Your task to perform on an android device: refresh tabs in the chrome app Image 0: 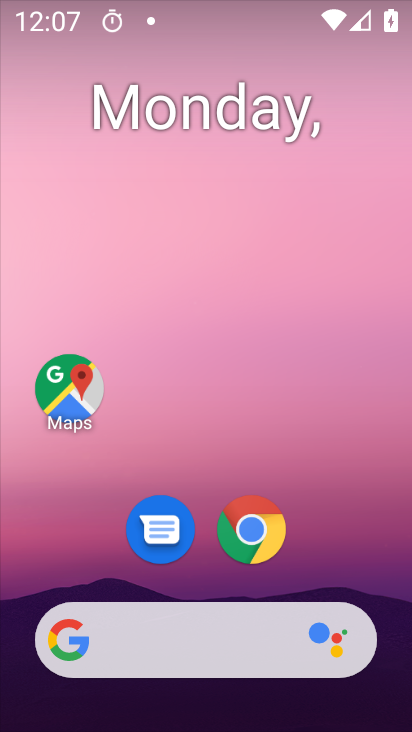
Step 0: drag from (380, 587) to (367, 132)
Your task to perform on an android device: refresh tabs in the chrome app Image 1: 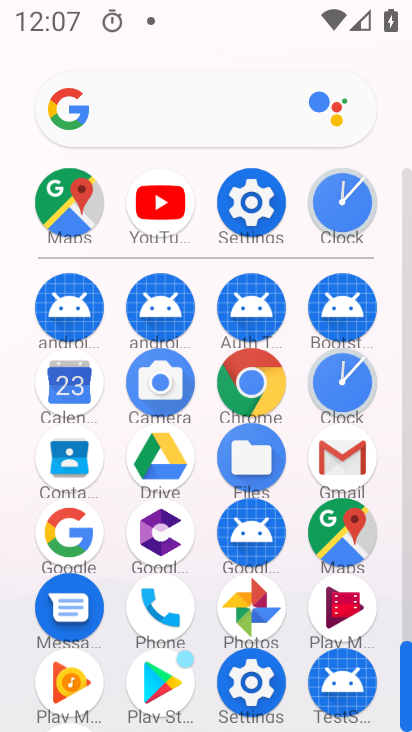
Step 1: click (249, 393)
Your task to perform on an android device: refresh tabs in the chrome app Image 2: 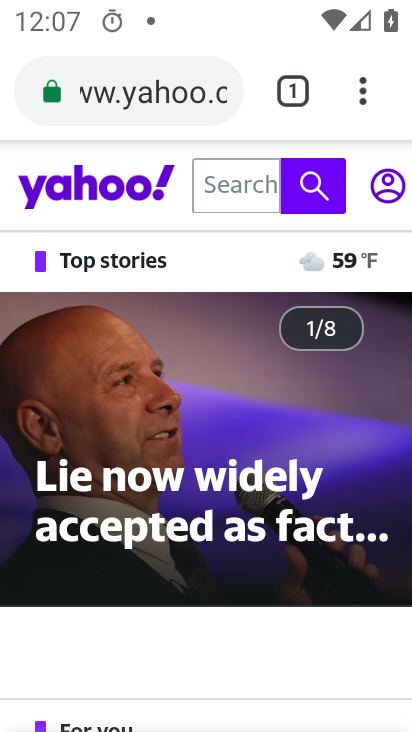
Step 2: click (364, 104)
Your task to perform on an android device: refresh tabs in the chrome app Image 3: 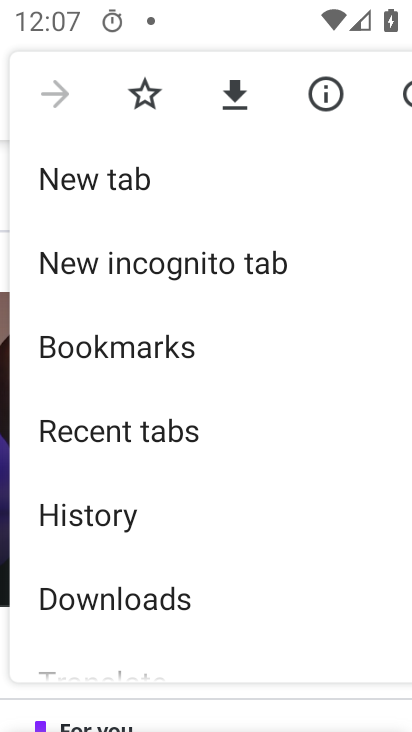
Step 3: click (406, 97)
Your task to perform on an android device: refresh tabs in the chrome app Image 4: 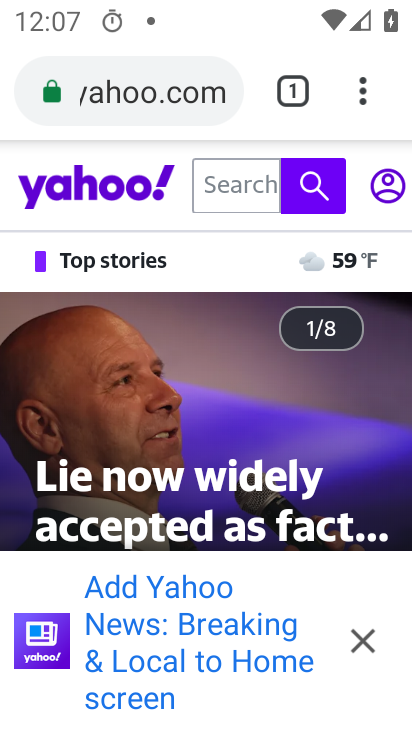
Step 4: task complete